Your task to perform on an android device: toggle wifi Image 0: 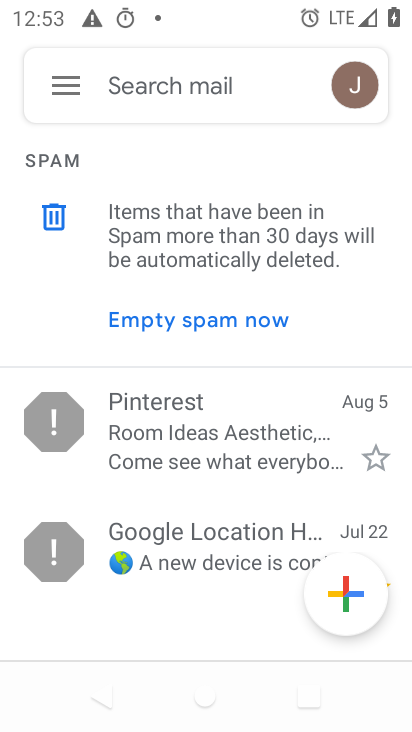
Step 0: press back button
Your task to perform on an android device: toggle wifi Image 1: 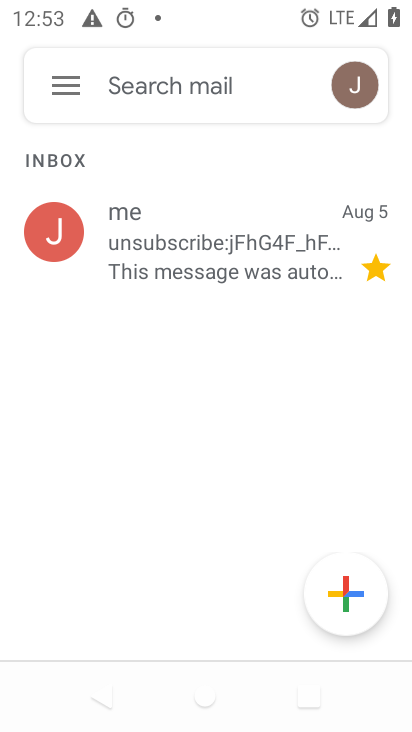
Step 1: press back button
Your task to perform on an android device: toggle wifi Image 2: 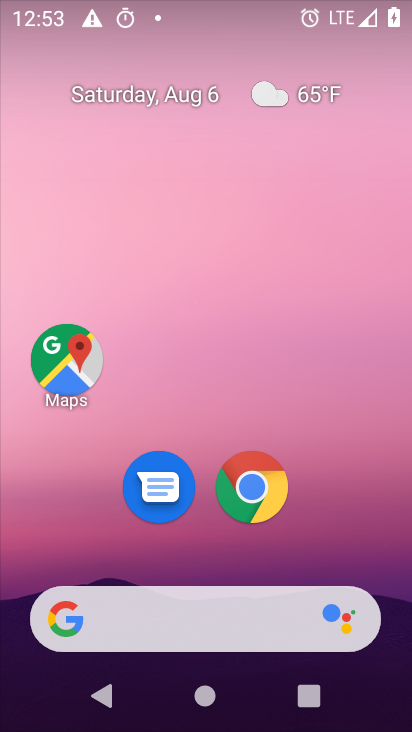
Step 2: drag from (117, 13) to (176, 464)
Your task to perform on an android device: toggle wifi Image 3: 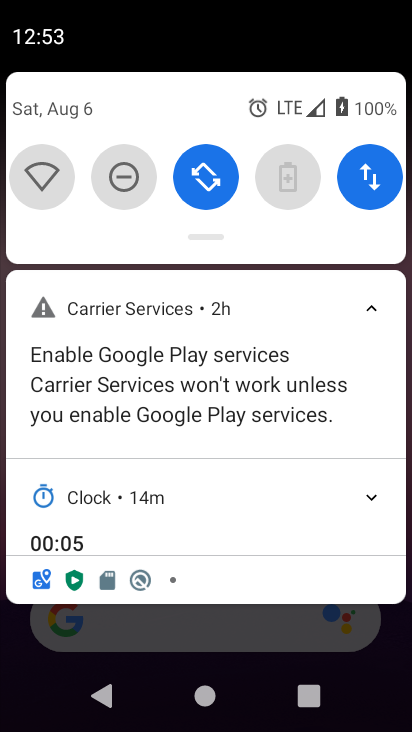
Step 3: click (33, 176)
Your task to perform on an android device: toggle wifi Image 4: 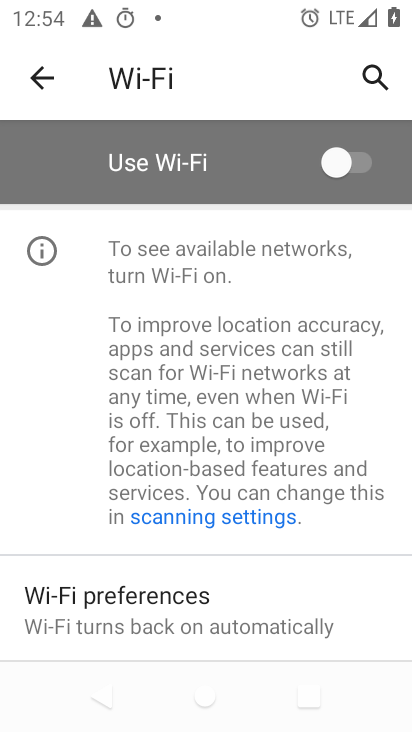
Step 4: click (330, 161)
Your task to perform on an android device: toggle wifi Image 5: 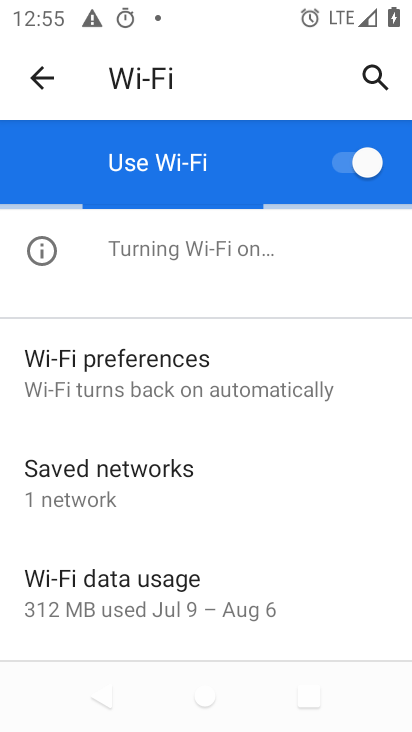
Step 5: task complete